Your task to perform on an android device: Open Android settings Image 0: 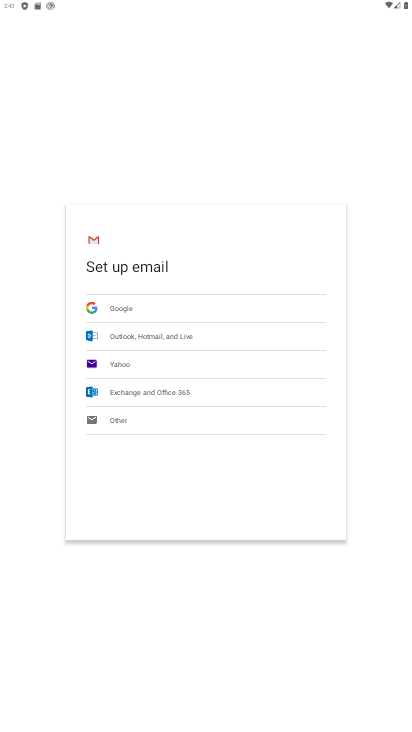
Step 0: press home button
Your task to perform on an android device: Open Android settings Image 1: 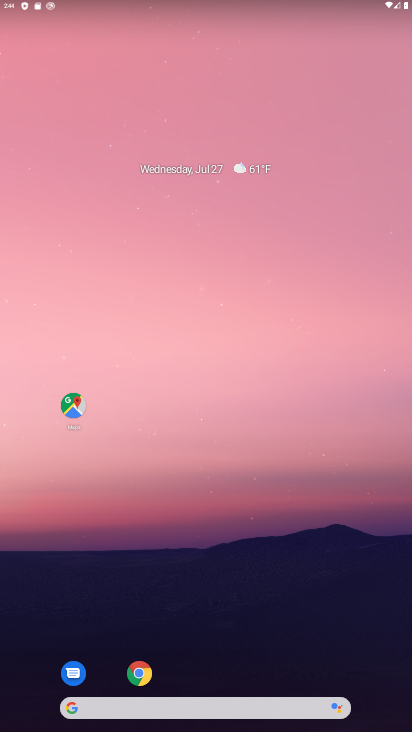
Step 1: drag from (304, 629) to (271, 22)
Your task to perform on an android device: Open Android settings Image 2: 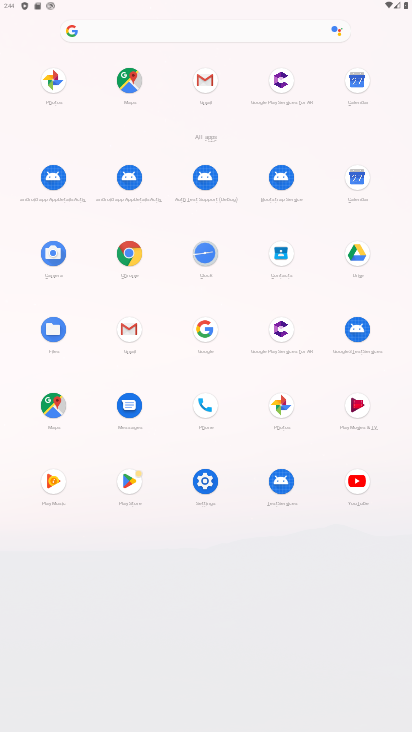
Step 2: click (207, 489)
Your task to perform on an android device: Open Android settings Image 3: 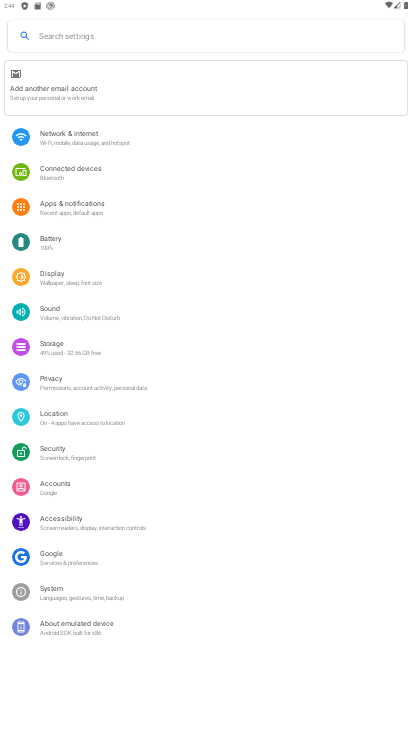
Step 3: task complete